Your task to perform on an android device: Open Chrome and go to settings Image 0: 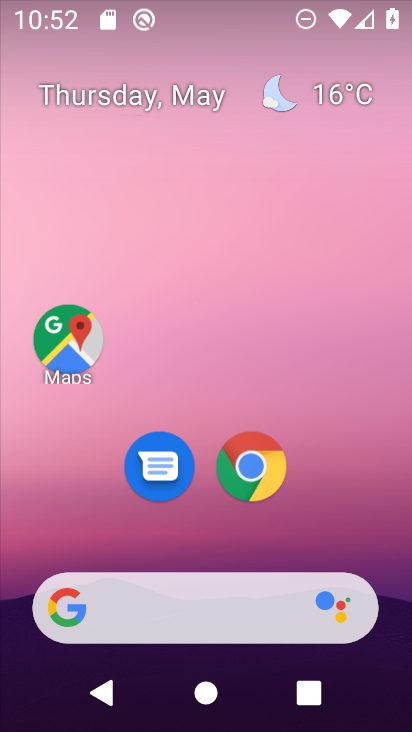
Step 0: drag from (310, 552) to (303, 198)
Your task to perform on an android device: Open Chrome and go to settings Image 1: 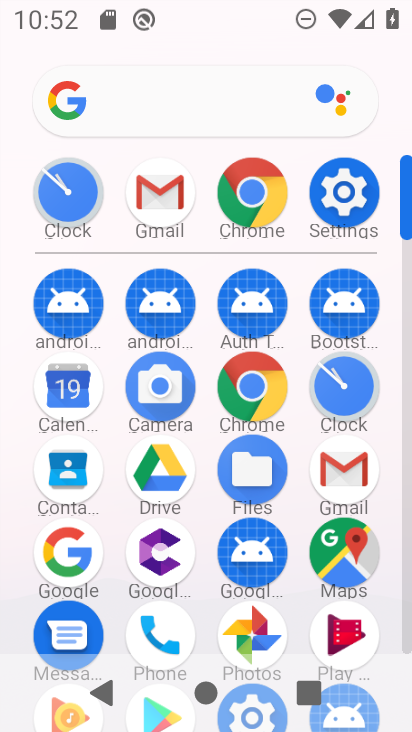
Step 1: click (264, 195)
Your task to perform on an android device: Open Chrome and go to settings Image 2: 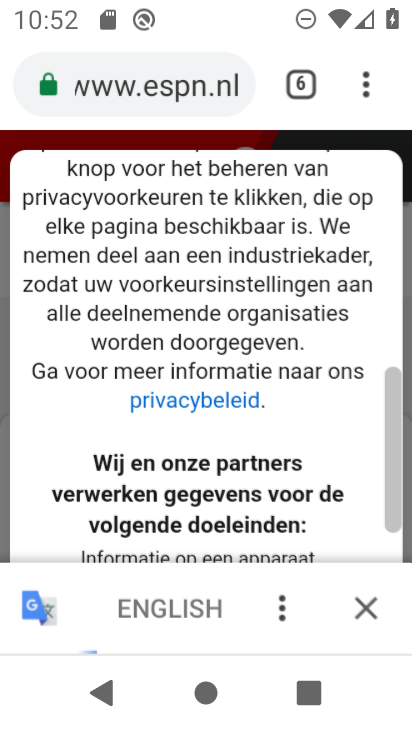
Step 2: click (363, 81)
Your task to perform on an android device: Open Chrome and go to settings Image 3: 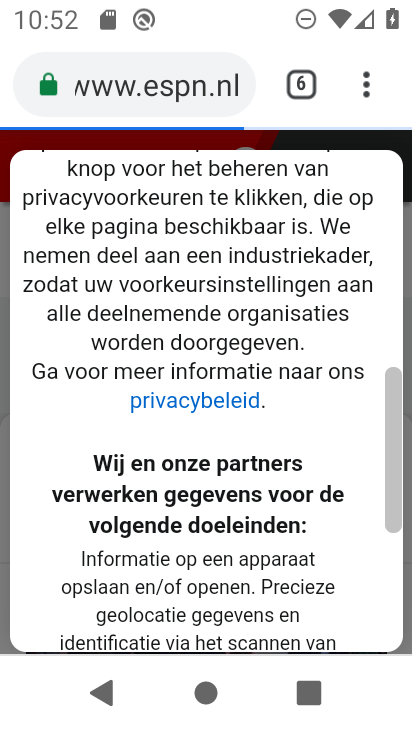
Step 3: click (356, 76)
Your task to perform on an android device: Open Chrome and go to settings Image 4: 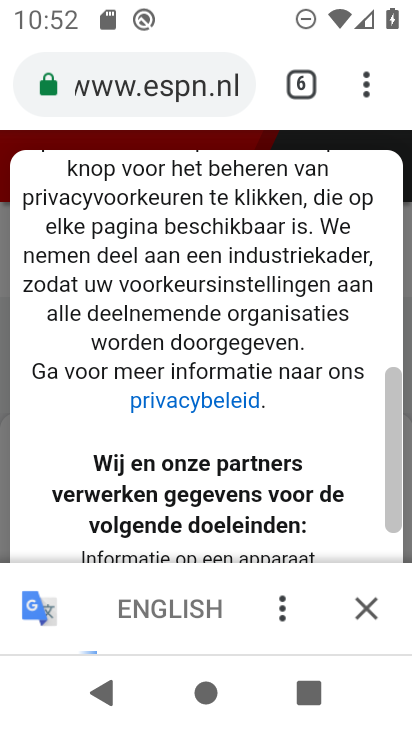
Step 4: click (365, 85)
Your task to perform on an android device: Open Chrome and go to settings Image 5: 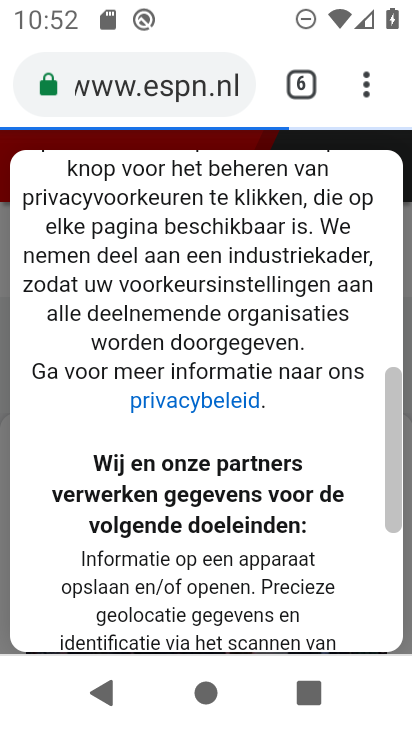
Step 5: click (371, 91)
Your task to perform on an android device: Open Chrome and go to settings Image 6: 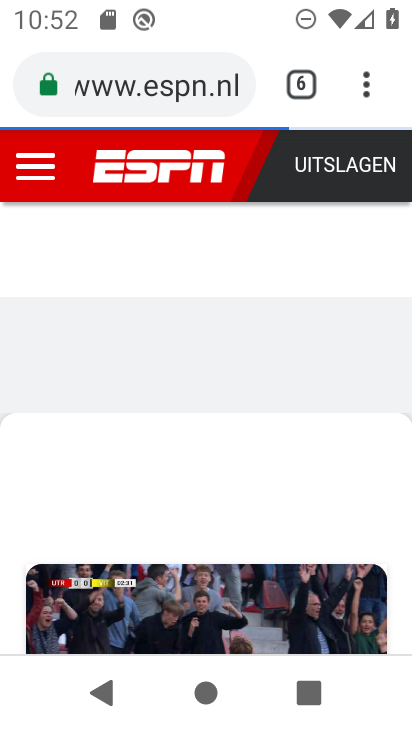
Step 6: click (379, 79)
Your task to perform on an android device: Open Chrome and go to settings Image 7: 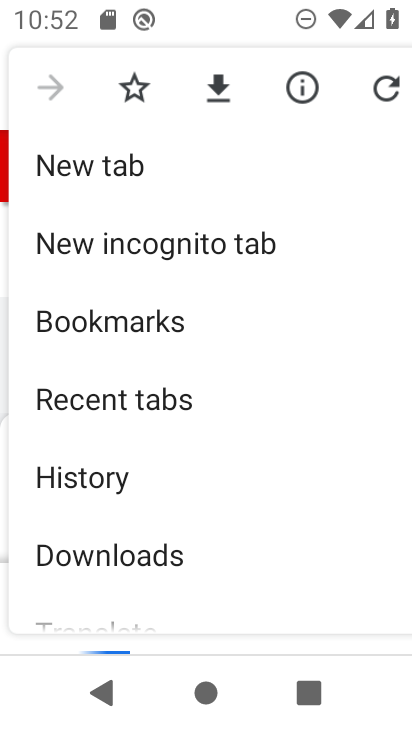
Step 7: drag from (227, 530) to (269, 156)
Your task to perform on an android device: Open Chrome and go to settings Image 8: 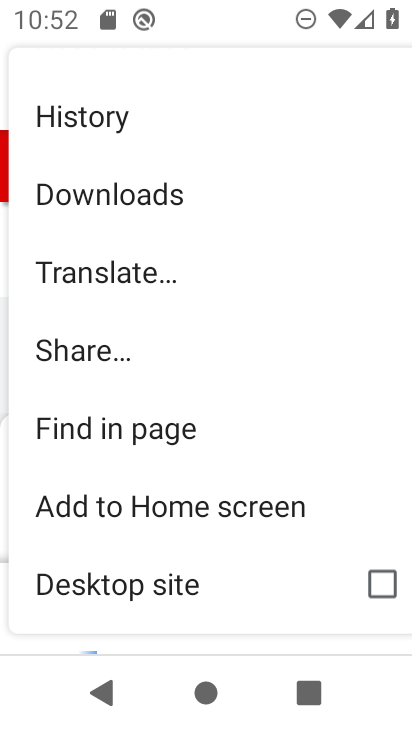
Step 8: drag from (238, 520) to (234, 258)
Your task to perform on an android device: Open Chrome and go to settings Image 9: 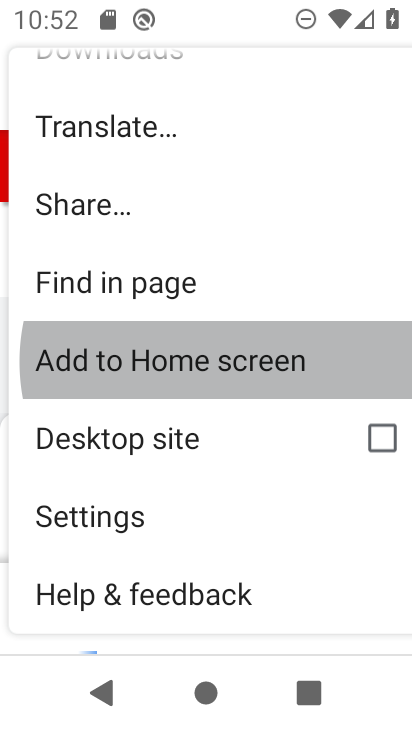
Step 9: drag from (201, 432) to (220, 202)
Your task to perform on an android device: Open Chrome and go to settings Image 10: 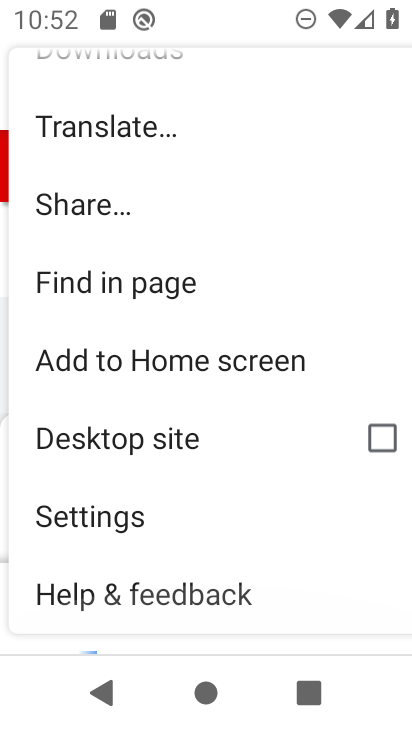
Step 10: drag from (173, 449) to (192, 198)
Your task to perform on an android device: Open Chrome and go to settings Image 11: 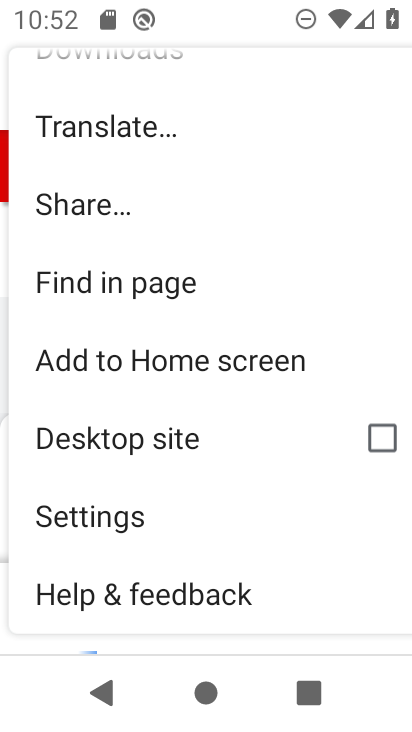
Step 11: click (135, 517)
Your task to perform on an android device: Open Chrome and go to settings Image 12: 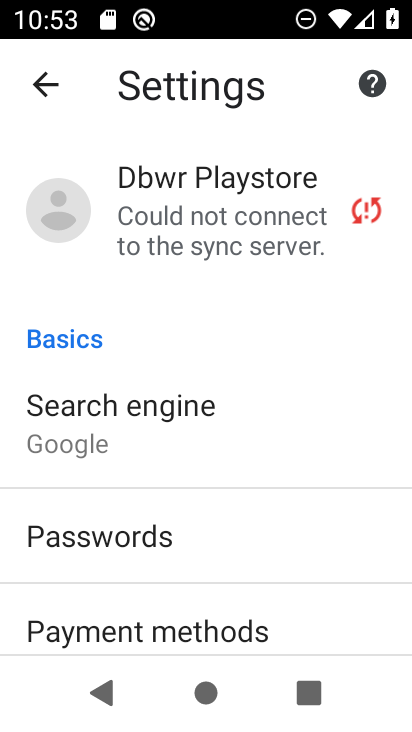
Step 12: task complete